Your task to perform on an android device: Go to Amazon Image 0: 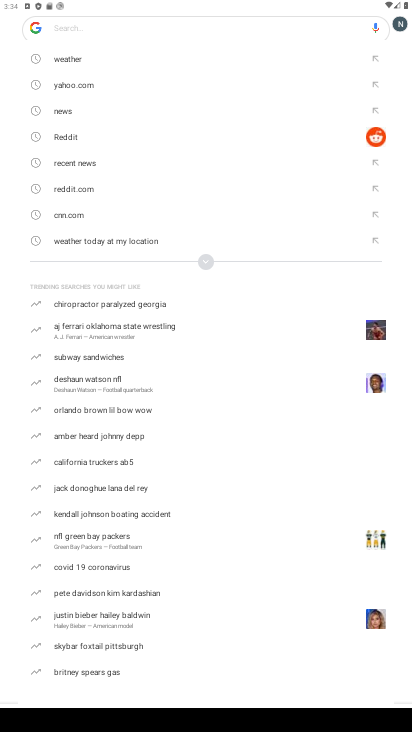
Step 0: press home button
Your task to perform on an android device: Go to Amazon Image 1: 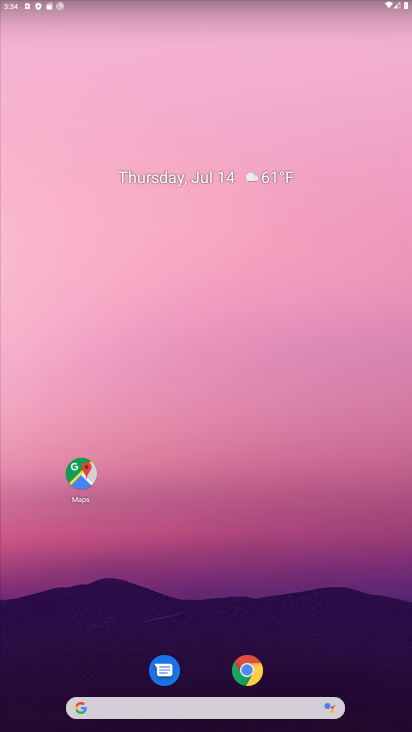
Step 1: click (236, 655)
Your task to perform on an android device: Go to Amazon Image 2: 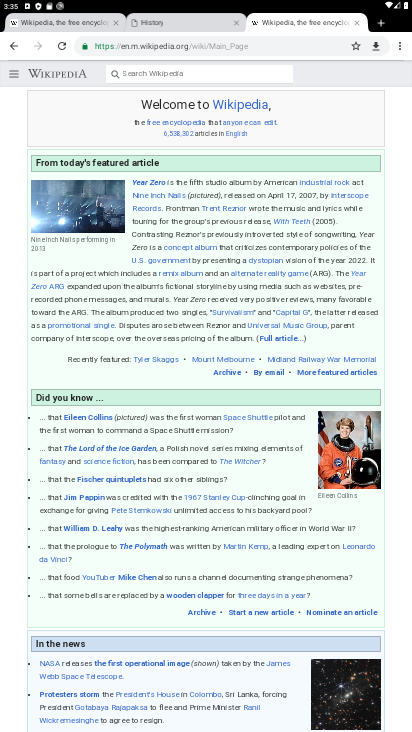
Step 2: press home button
Your task to perform on an android device: Go to Amazon Image 3: 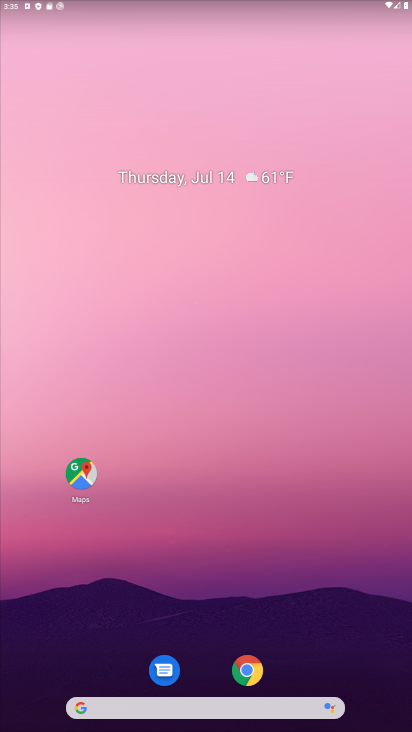
Step 3: click (247, 670)
Your task to perform on an android device: Go to Amazon Image 4: 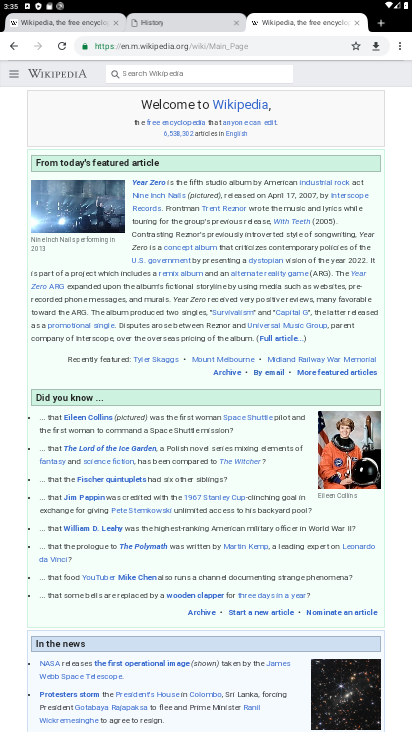
Step 4: click (379, 22)
Your task to perform on an android device: Go to Amazon Image 5: 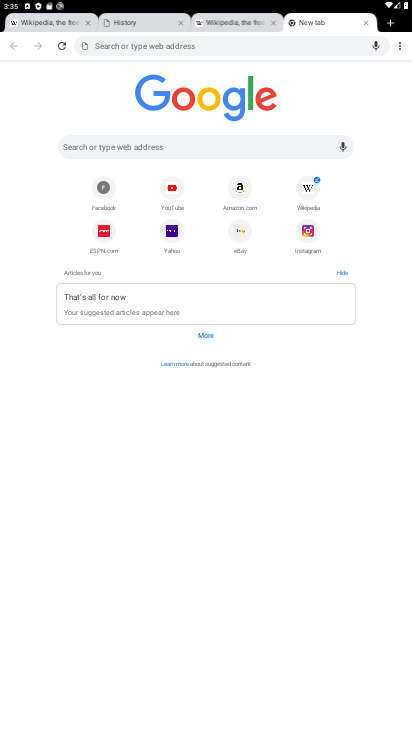
Step 5: click (244, 190)
Your task to perform on an android device: Go to Amazon Image 6: 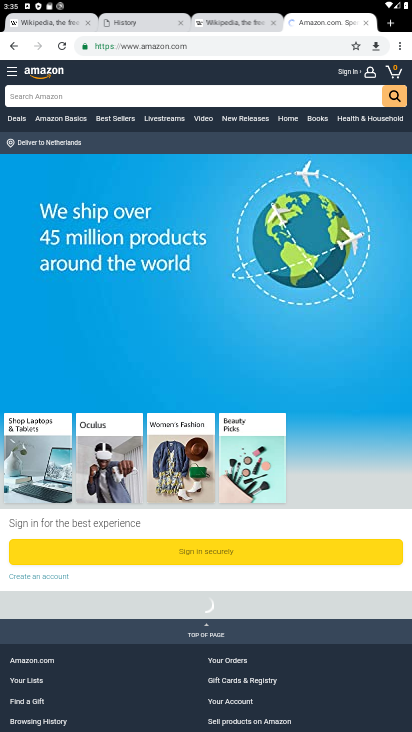
Step 6: task complete